Your task to perform on an android device: turn off wifi Image 0: 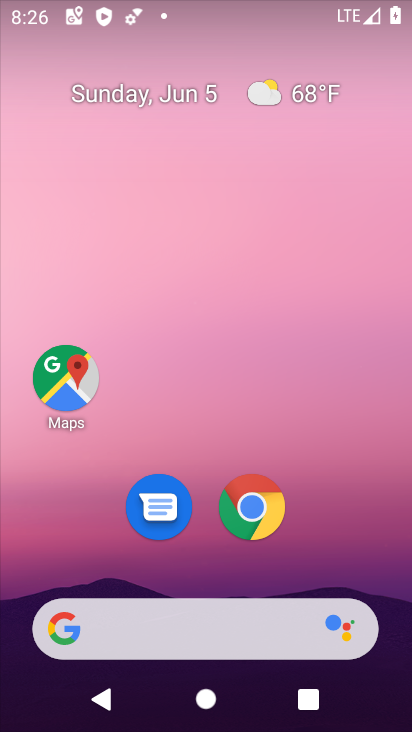
Step 0: drag from (206, 560) to (280, 153)
Your task to perform on an android device: turn off wifi Image 1: 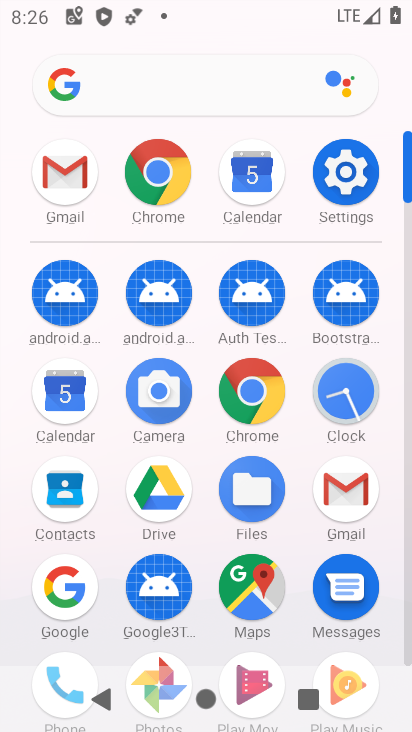
Step 1: click (359, 199)
Your task to perform on an android device: turn off wifi Image 2: 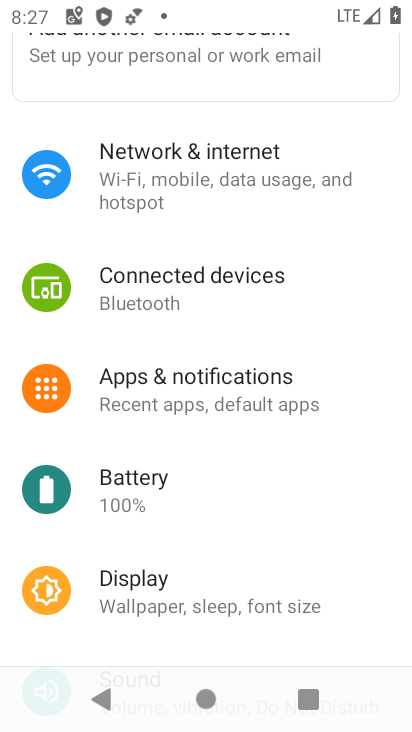
Step 2: drag from (230, 177) to (190, 335)
Your task to perform on an android device: turn off wifi Image 3: 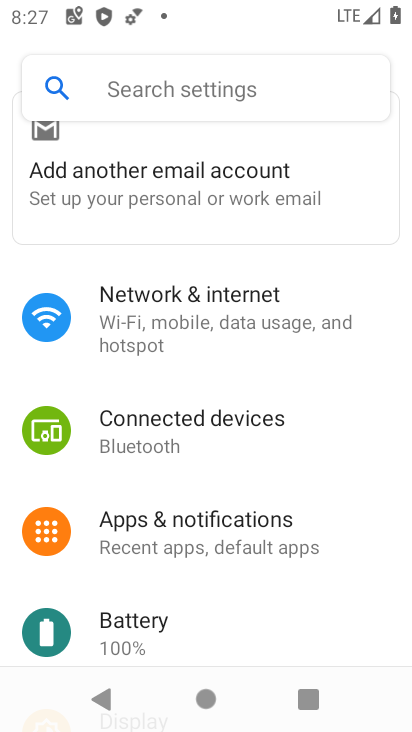
Step 3: click (199, 334)
Your task to perform on an android device: turn off wifi Image 4: 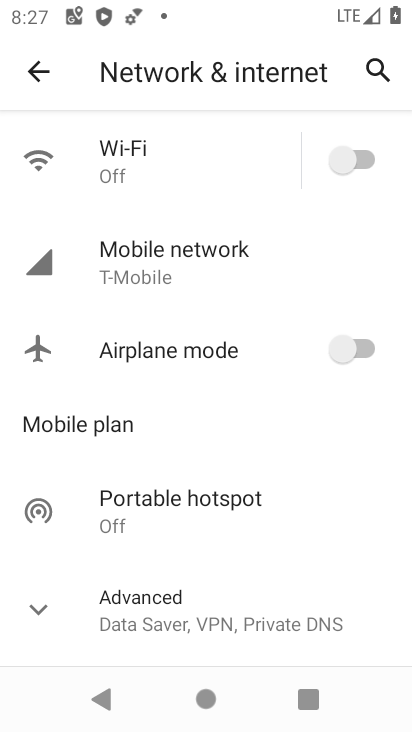
Step 4: task complete